Your task to perform on an android device: delete location history Image 0: 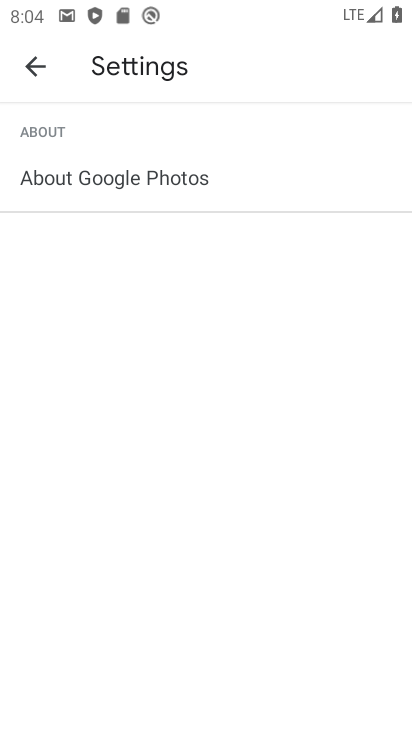
Step 0: press home button
Your task to perform on an android device: delete location history Image 1: 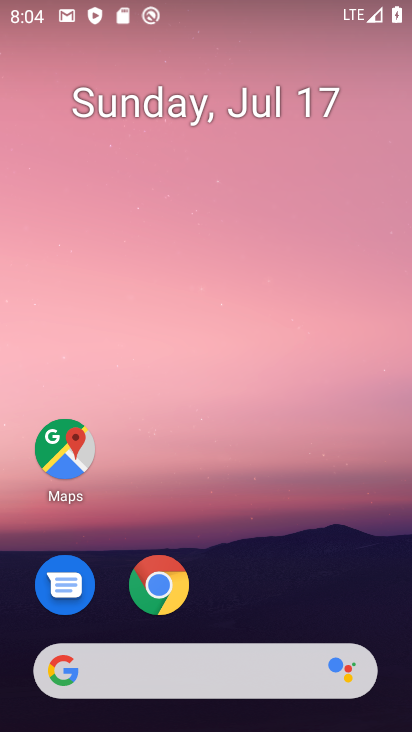
Step 1: drag from (163, 677) to (264, 16)
Your task to perform on an android device: delete location history Image 2: 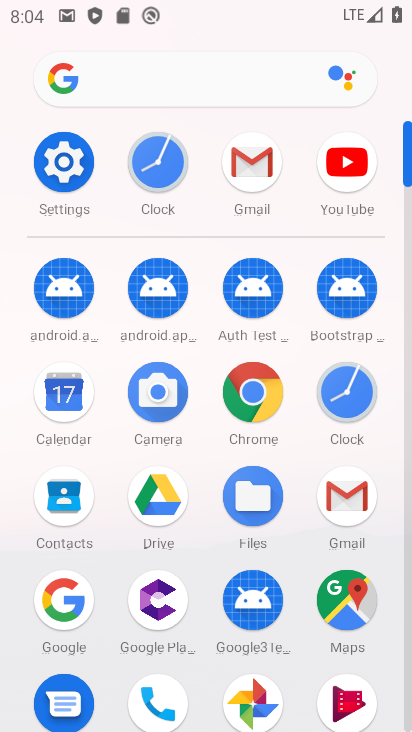
Step 2: click (341, 607)
Your task to perform on an android device: delete location history Image 3: 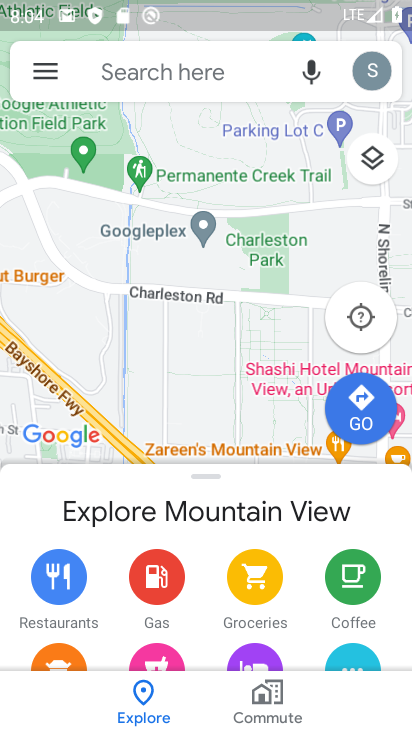
Step 3: click (41, 73)
Your task to perform on an android device: delete location history Image 4: 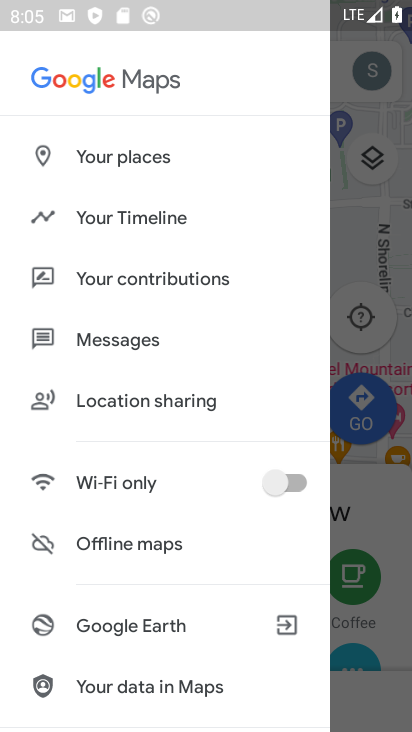
Step 4: click (168, 215)
Your task to perform on an android device: delete location history Image 5: 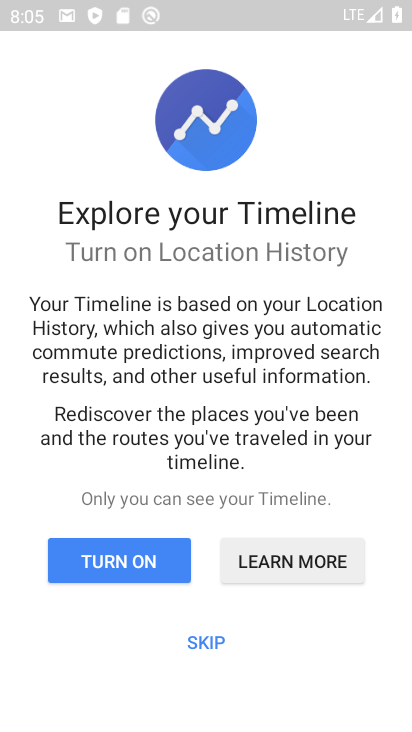
Step 5: click (209, 640)
Your task to perform on an android device: delete location history Image 6: 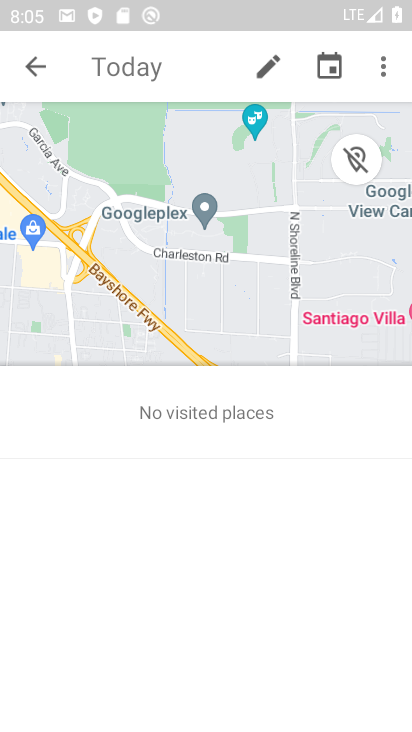
Step 6: click (383, 72)
Your task to perform on an android device: delete location history Image 7: 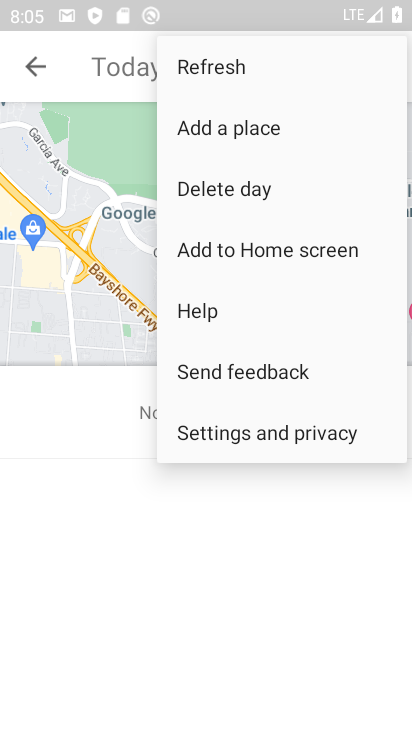
Step 7: click (256, 437)
Your task to perform on an android device: delete location history Image 8: 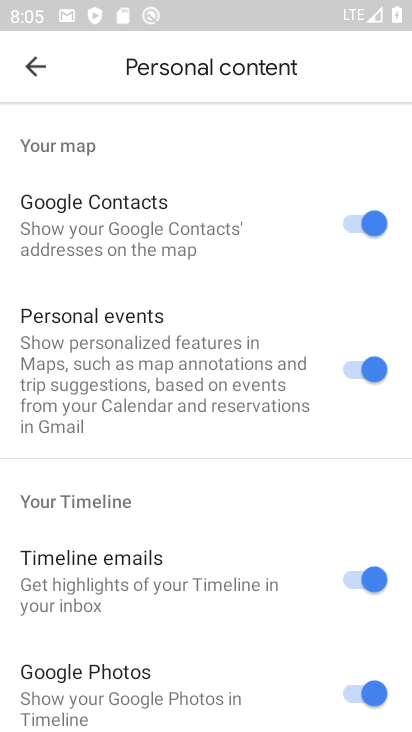
Step 8: drag from (226, 593) to (289, 57)
Your task to perform on an android device: delete location history Image 9: 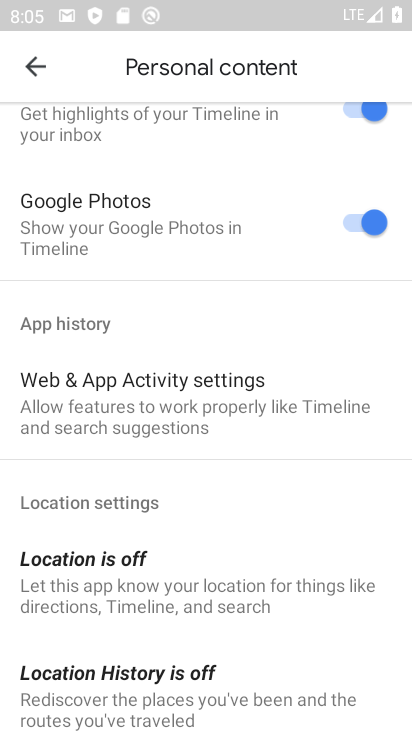
Step 9: drag from (227, 640) to (305, 138)
Your task to perform on an android device: delete location history Image 10: 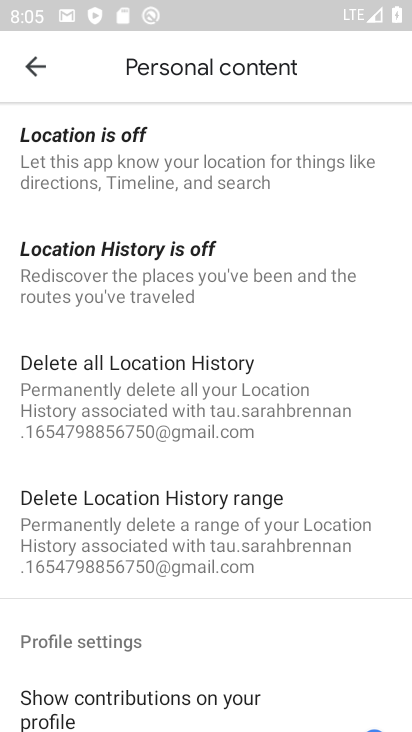
Step 10: click (171, 371)
Your task to perform on an android device: delete location history Image 11: 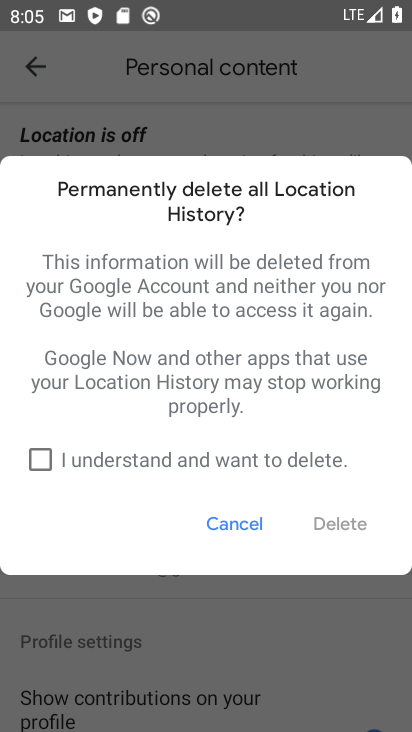
Step 11: click (41, 461)
Your task to perform on an android device: delete location history Image 12: 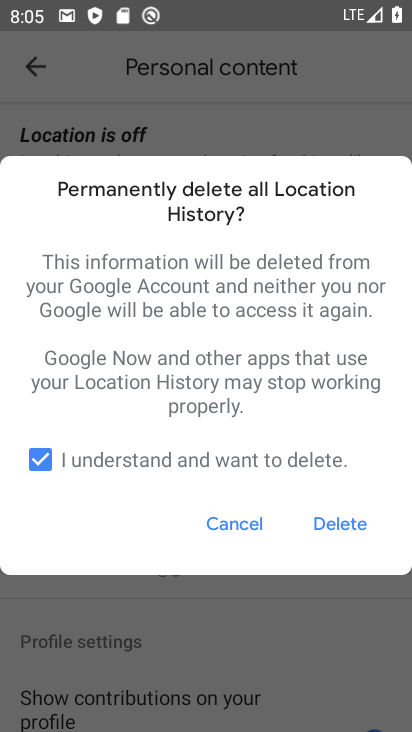
Step 12: click (333, 522)
Your task to perform on an android device: delete location history Image 13: 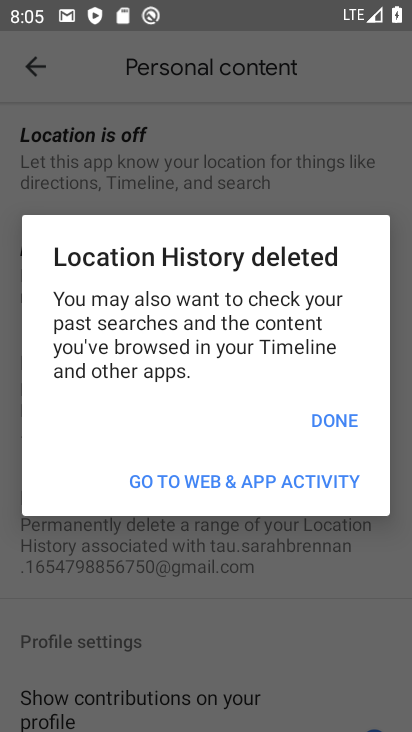
Step 13: click (338, 424)
Your task to perform on an android device: delete location history Image 14: 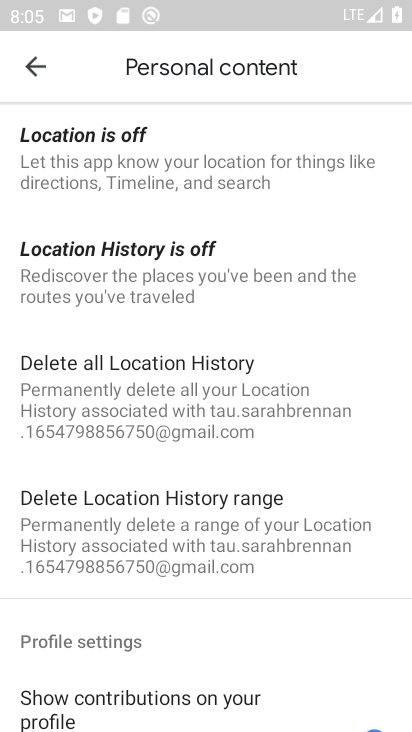
Step 14: task complete